Your task to perform on an android device: move an email to a new category in the gmail app Image 0: 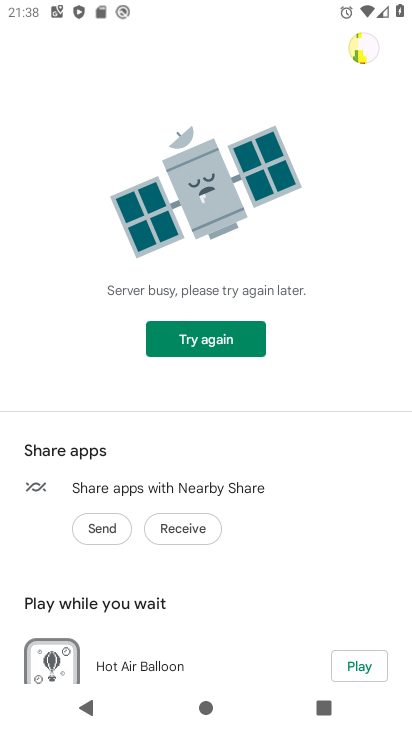
Step 0: press home button
Your task to perform on an android device: move an email to a new category in the gmail app Image 1: 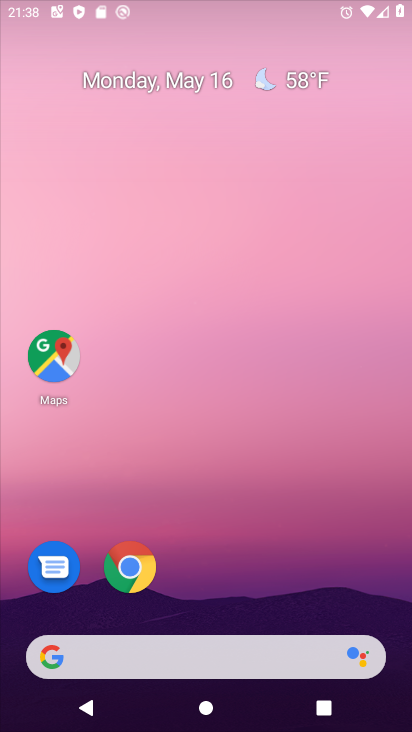
Step 1: drag from (202, 596) to (216, 172)
Your task to perform on an android device: move an email to a new category in the gmail app Image 2: 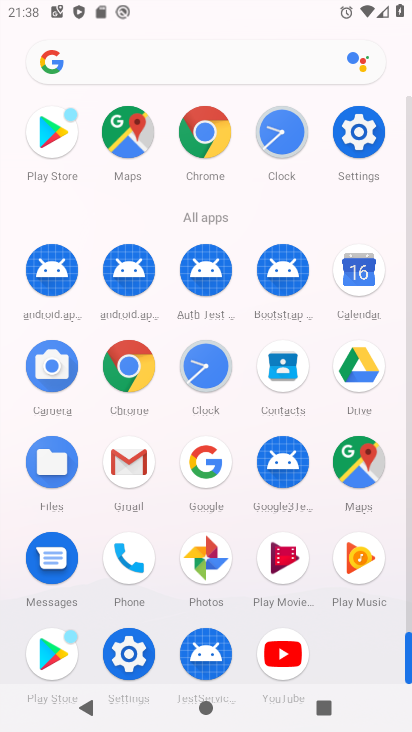
Step 2: click (126, 464)
Your task to perform on an android device: move an email to a new category in the gmail app Image 3: 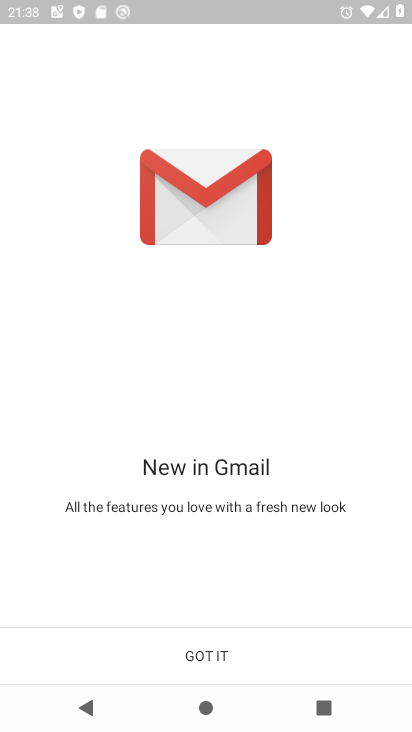
Step 3: click (192, 650)
Your task to perform on an android device: move an email to a new category in the gmail app Image 4: 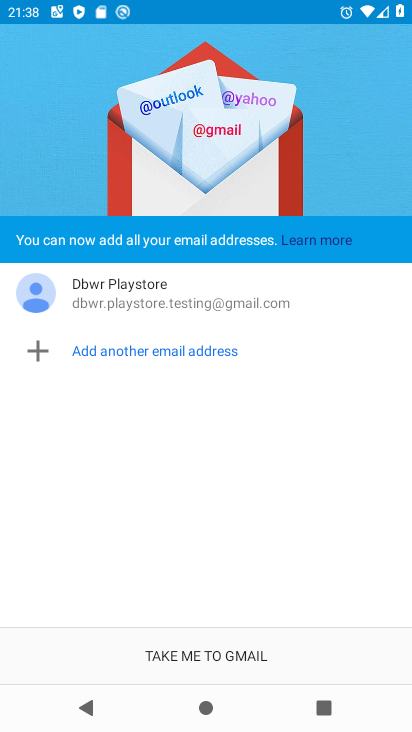
Step 4: click (192, 650)
Your task to perform on an android device: move an email to a new category in the gmail app Image 5: 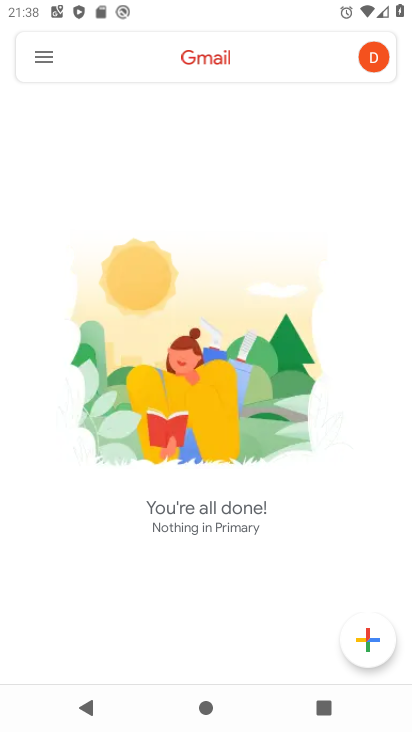
Step 5: click (36, 59)
Your task to perform on an android device: move an email to a new category in the gmail app Image 6: 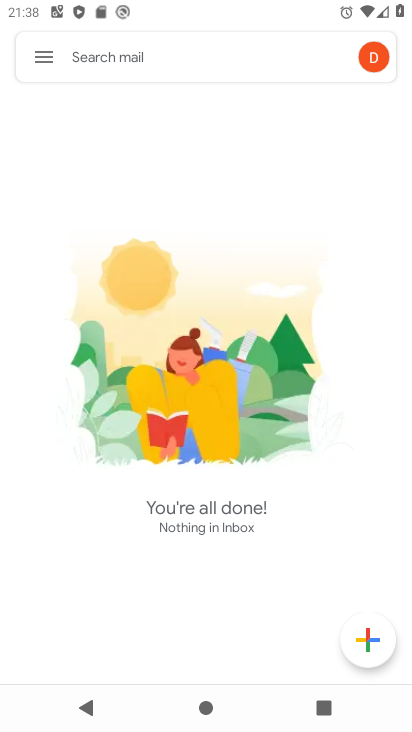
Step 6: click (33, 51)
Your task to perform on an android device: move an email to a new category in the gmail app Image 7: 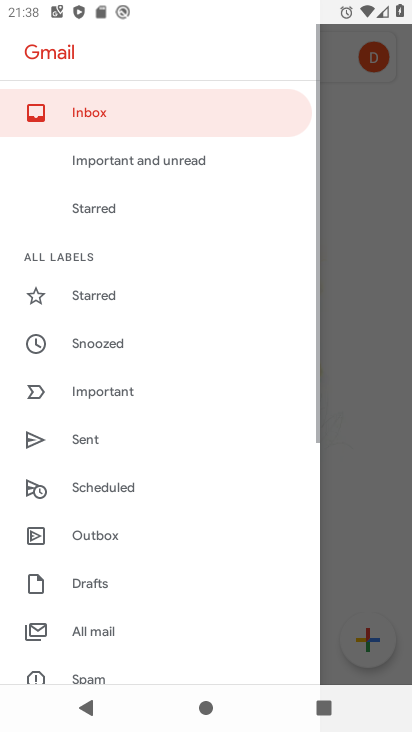
Step 7: drag from (121, 620) to (117, 538)
Your task to perform on an android device: move an email to a new category in the gmail app Image 8: 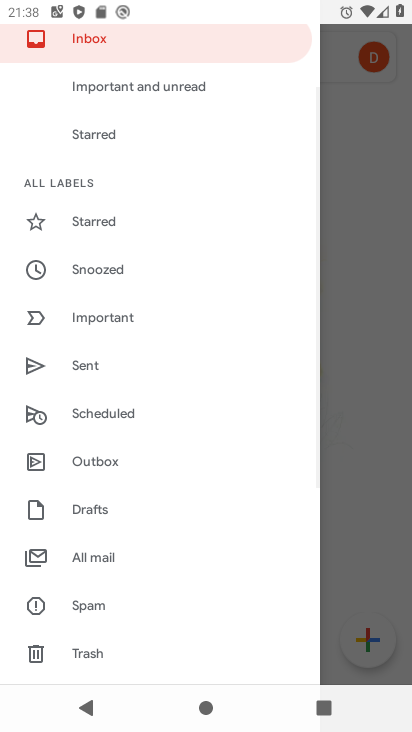
Step 8: click (91, 557)
Your task to perform on an android device: move an email to a new category in the gmail app Image 9: 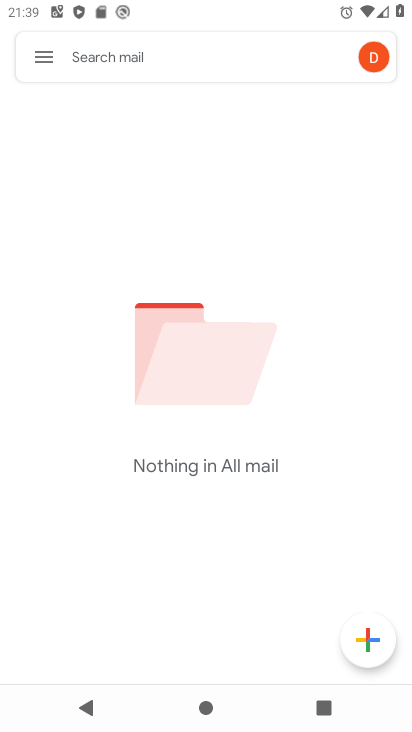
Step 9: task complete